Your task to perform on an android device: Open Google Maps Image 0: 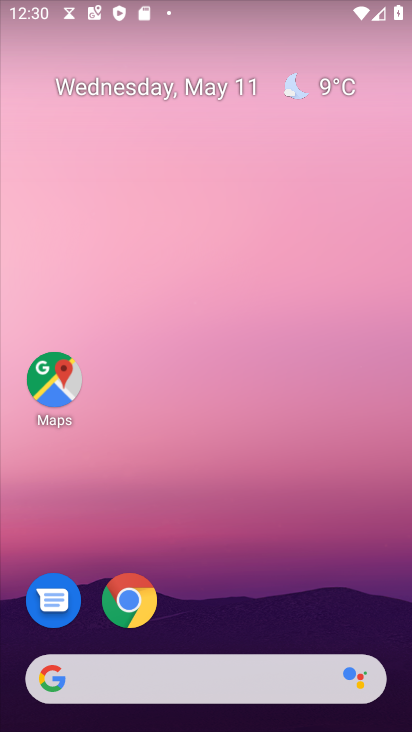
Step 0: click (60, 383)
Your task to perform on an android device: Open Google Maps Image 1: 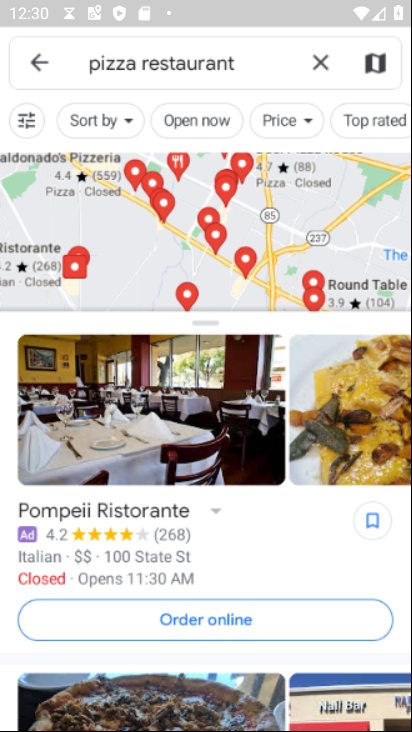
Step 1: task complete